Your task to perform on an android device: delete browsing data in the chrome app Image 0: 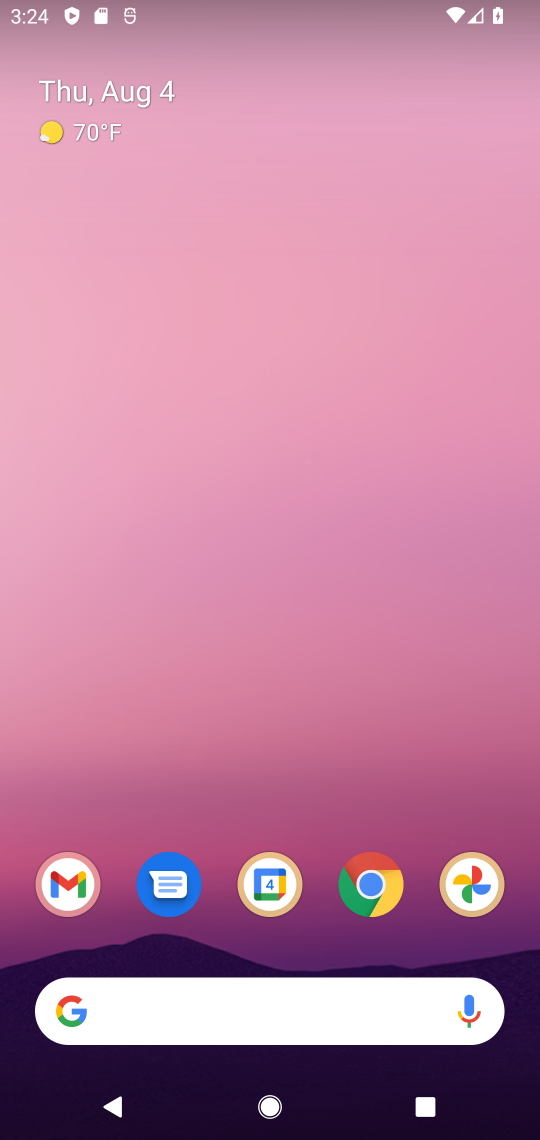
Step 0: drag from (245, 941) to (254, 679)
Your task to perform on an android device: delete browsing data in the chrome app Image 1: 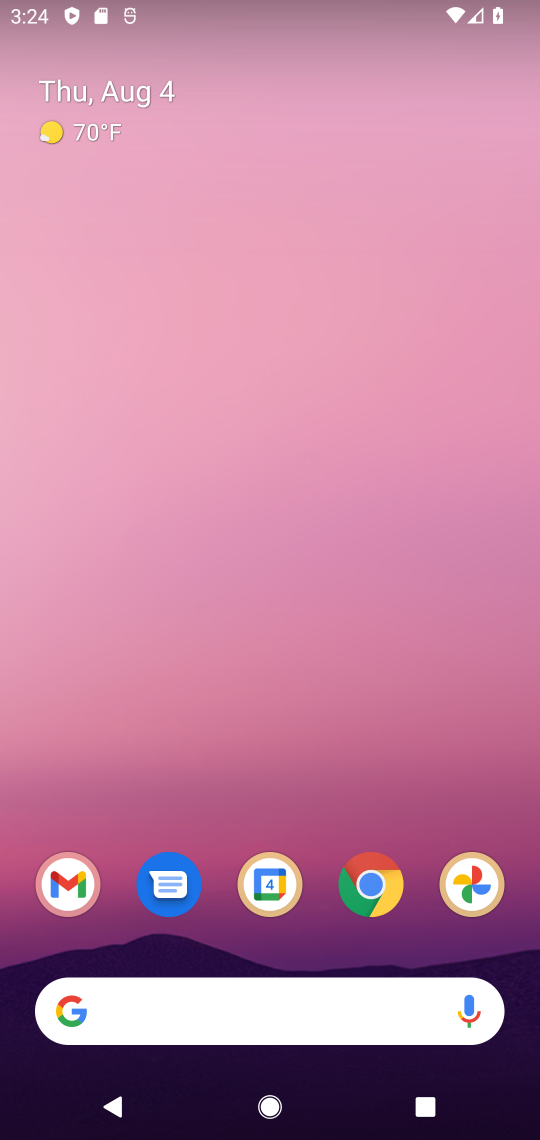
Step 1: drag from (283, 974) to (293, 257)
Your task to perform on an android device: delete browsing data in the chrome app Image 2: 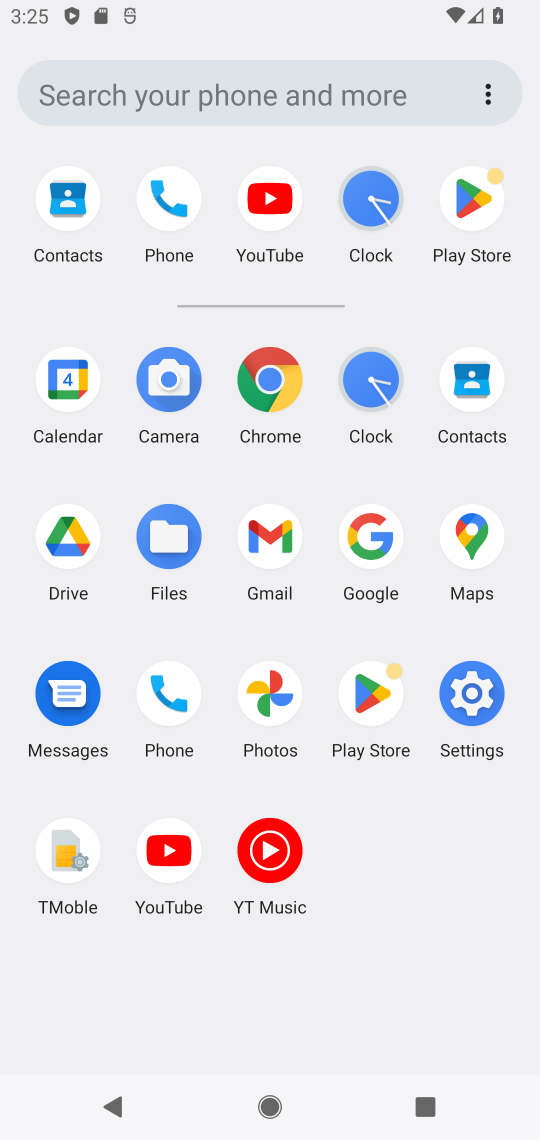
Step 2: click (251, 390)
Your task to perform on an android device: delete browsing data in the chrome app Image 3: 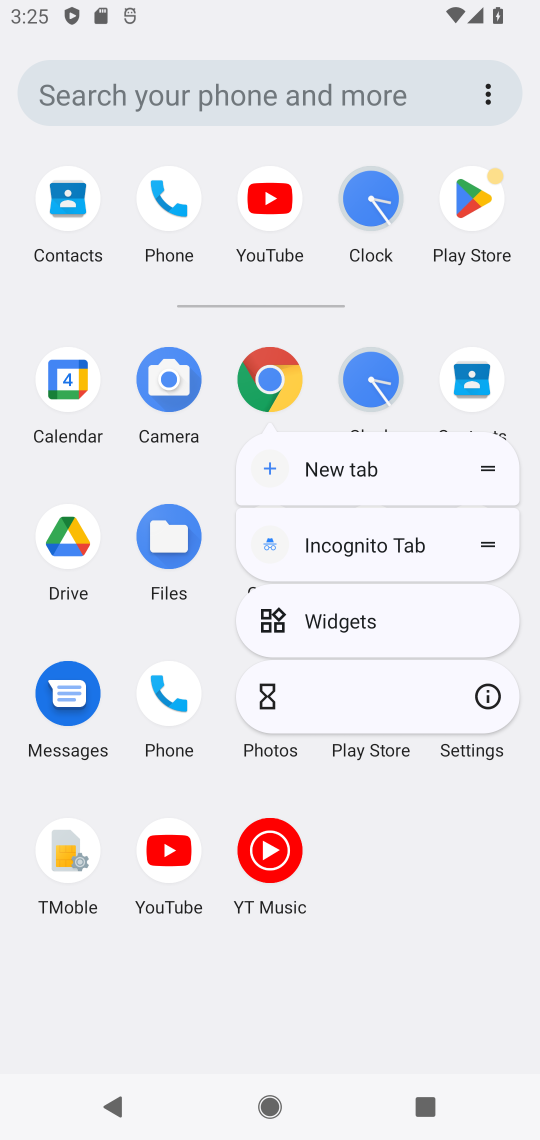
Step 3: click (261, 377)
Your task to perform on an android device: delete browsing data in the chrome app Image 4: 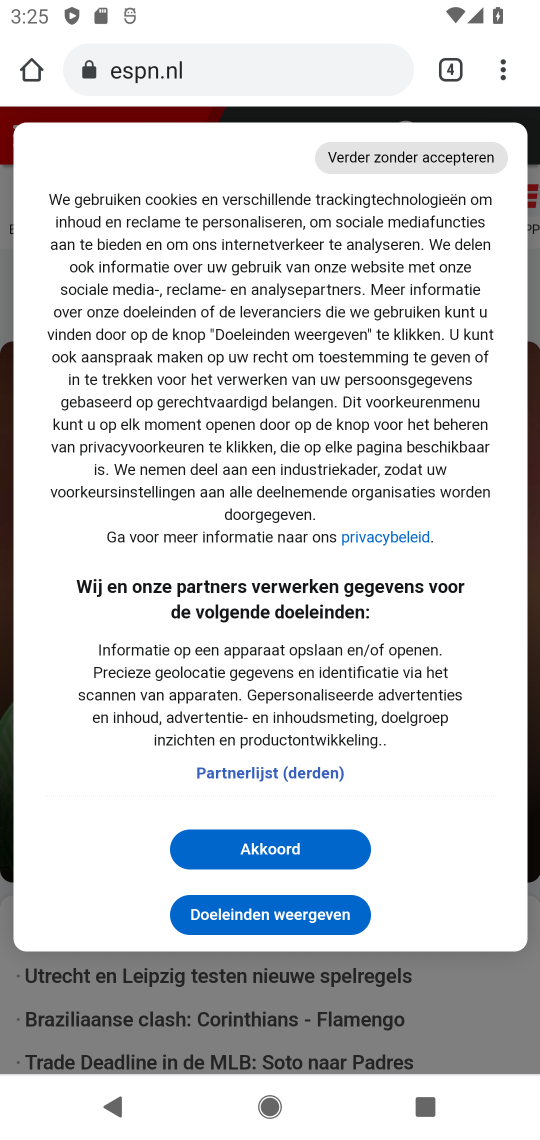
Step 4: click (502, 69)
Your task to perform on an android device: delete browsing data in the chrome app Image 5: 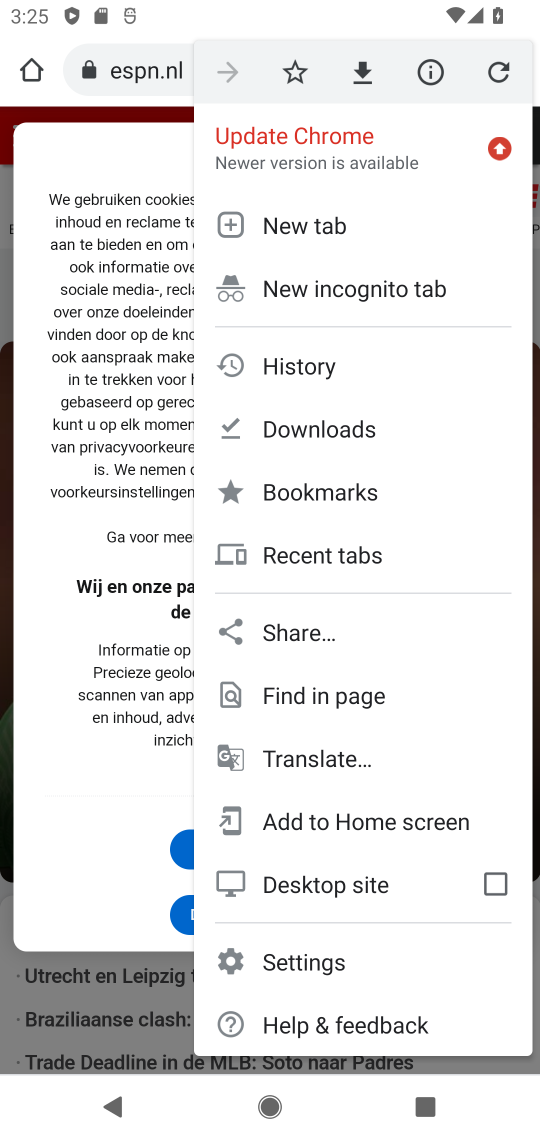
Step 5: click (265, 947)
Your task to perform on an android device: delete browsing data in the chrome app Image 6: 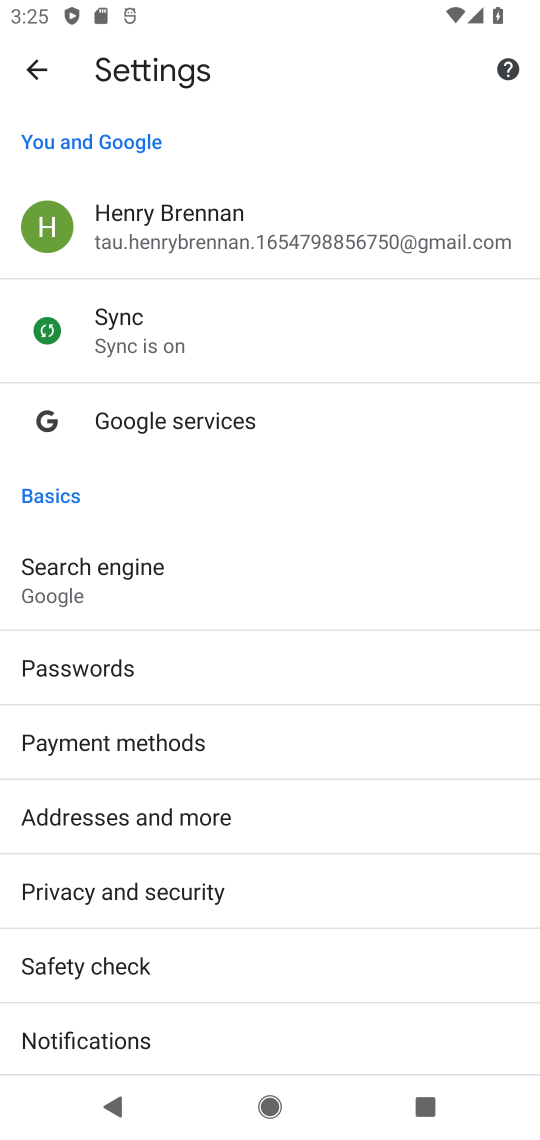
Step 6: drag from (151, 944) to (268, 347)
Your task to perform on an android device: delete browsing data in the chrome app Image 7: 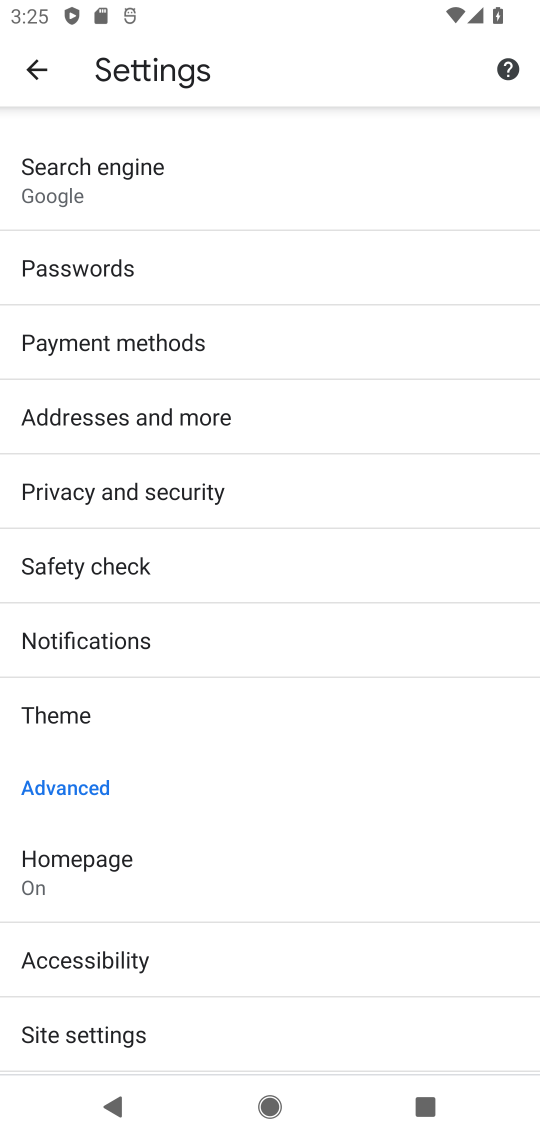
Step 7: drag from (207, 979) to (296, 468)
Your task to perform on an android device: delete browsing data in the chrome app Image 8: 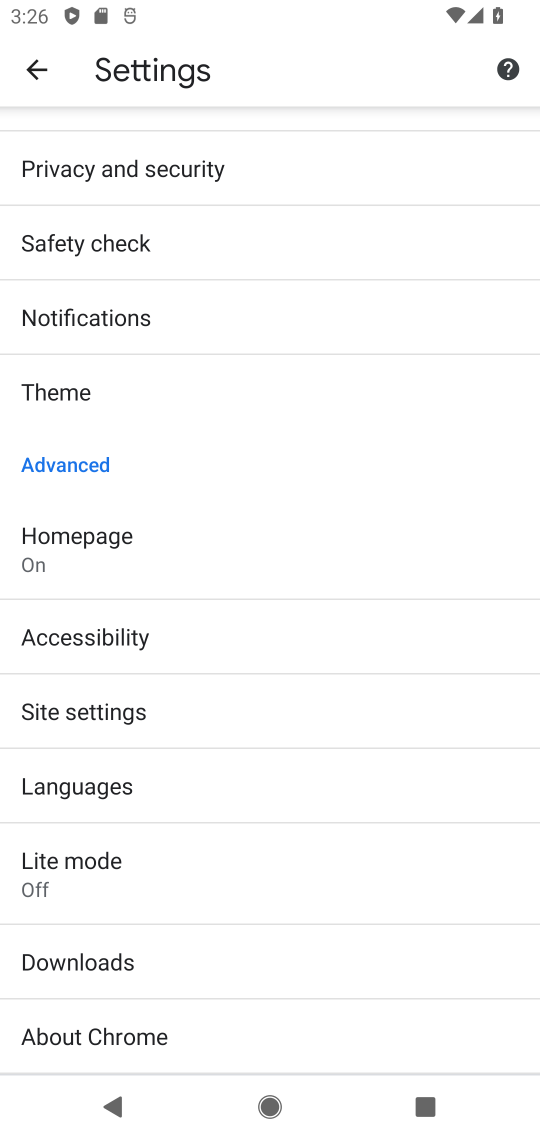
Step 8: drag from (201, 527) to (198, 1058)
Your task to perform on an android device: delete browsing data in the chrome app Image 9: 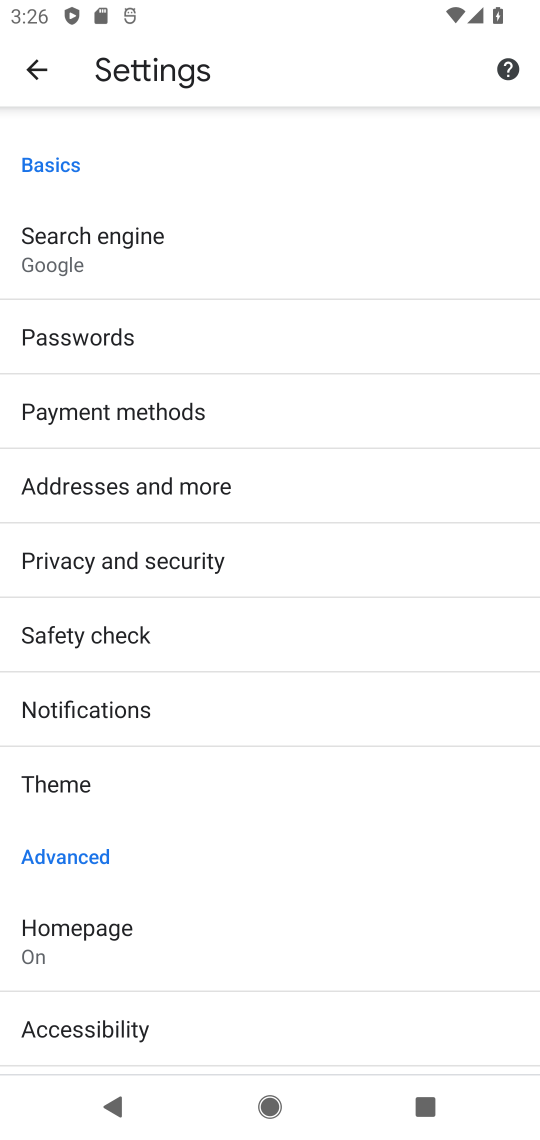
Step 9: click (183, 562)
Your task to perform on an android device: delete browsing data in the chrome app Image 10: 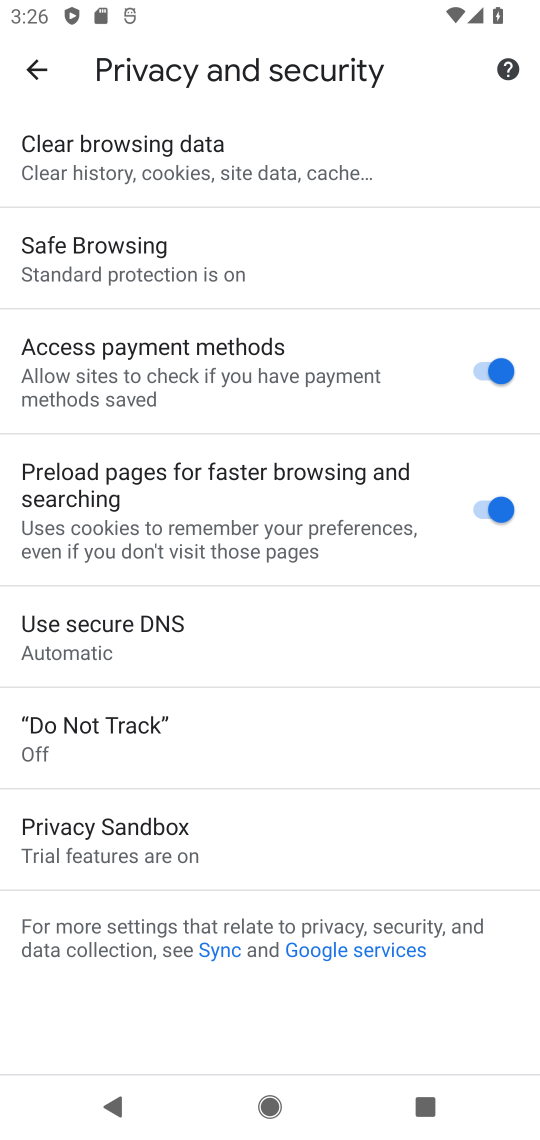
Step 10: click (220, 157)
Your task to perform on an android device: delete browsing data in the chrome app Image 11: 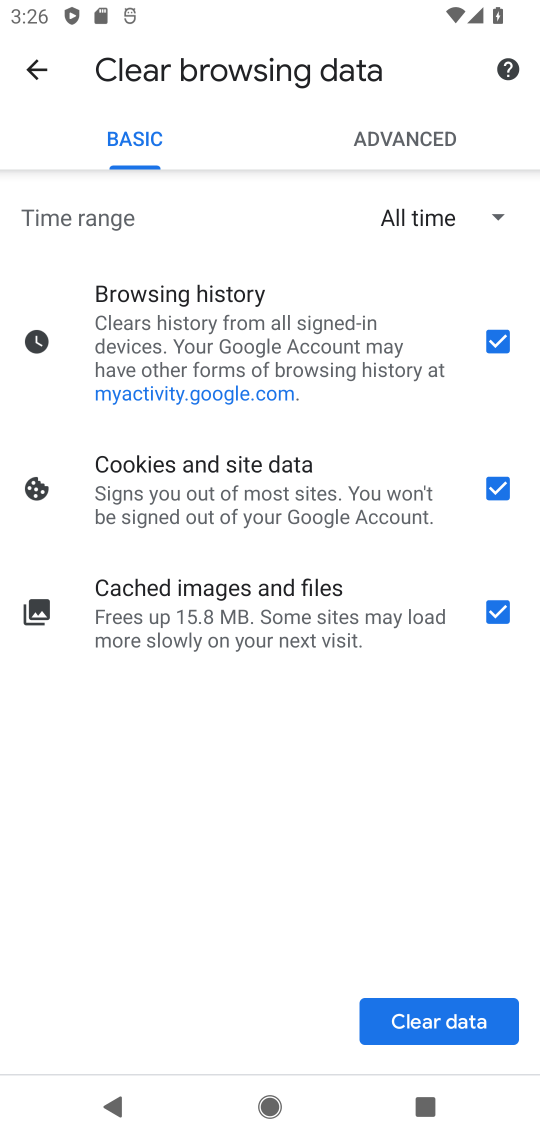
Step 11: click (456, 1023)
Your task to perform on an android device: delete browsing data in the chrome app Image 12: 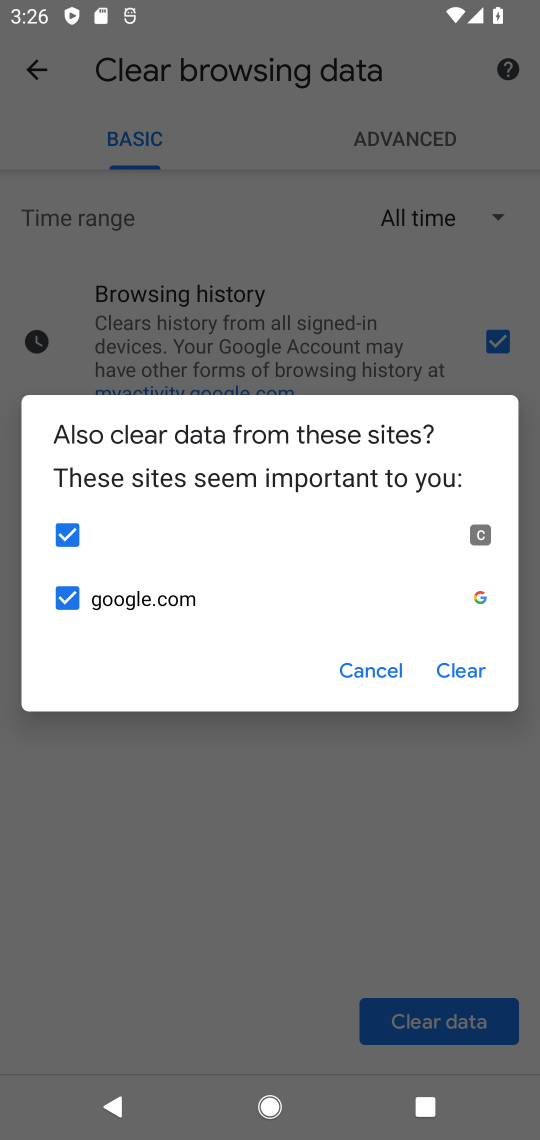
Step 12: click (463, 689)
Your task to perform on an android device: delete browsing data in the chrome app Image 13: 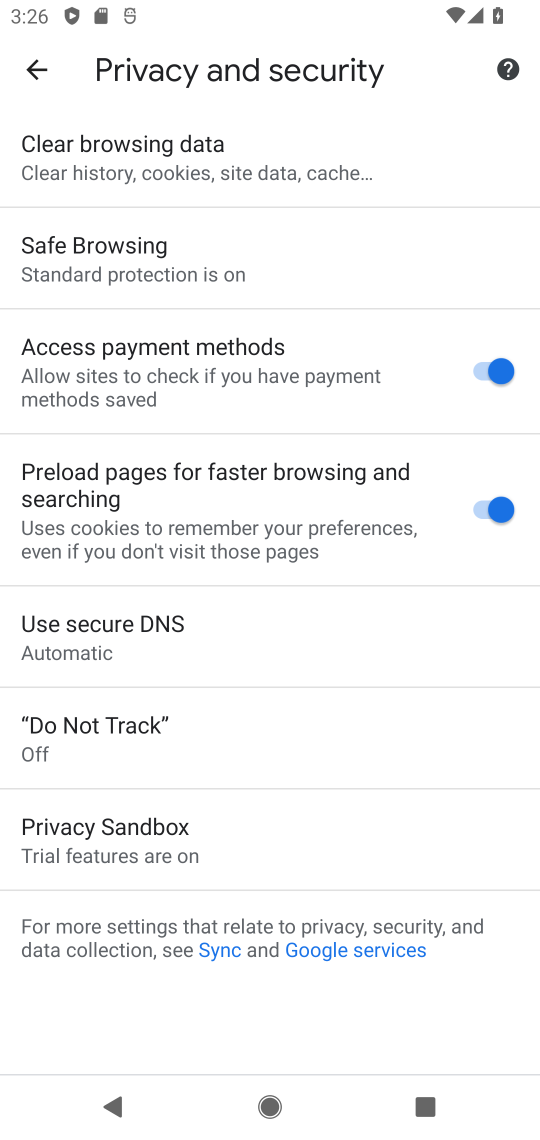
Step 13: task complete